Your task to perform on an android device: toggle pop-ups in chrome Image 0: 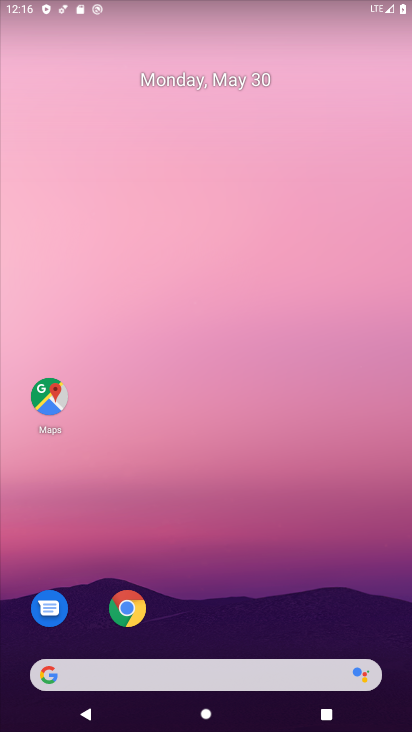
Step 0: click (139, 604)
Your task to perform on an android device: toggle pop-ups in chrome Image 1: 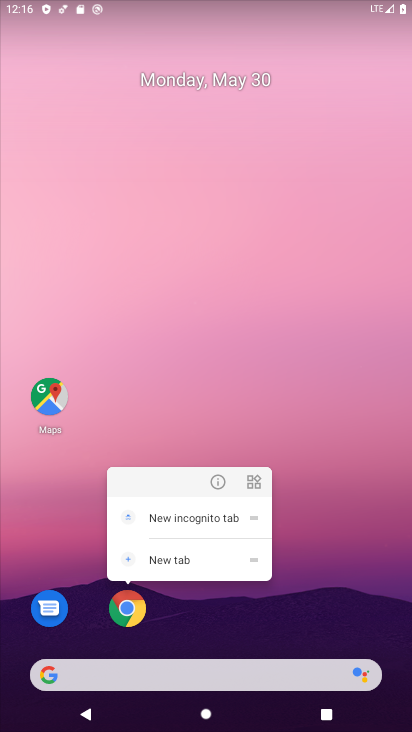
Step 1: click (120, 604)
Your task to perform on an android device: toggle pop-ups in chrome Image 2: 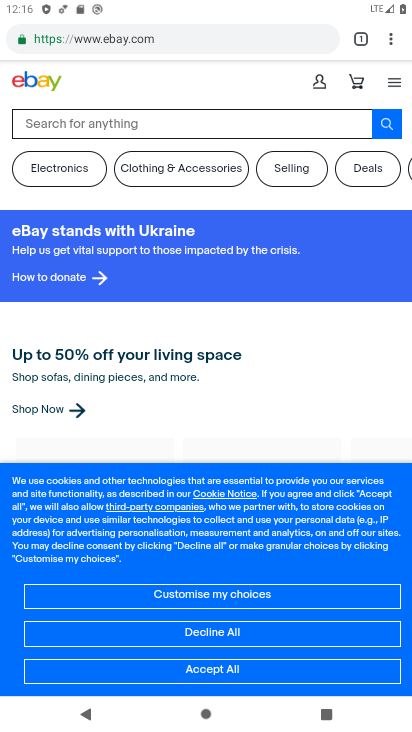
Step 2: click (392, 37)
Your task to perform on an android device: toggle pop-ups in chrome Image 3: 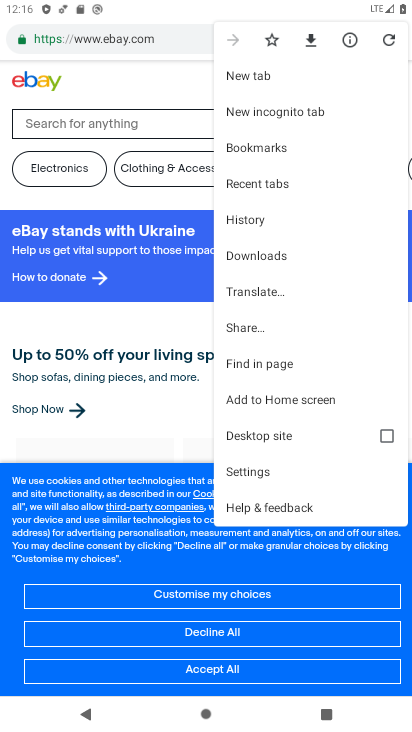
Step 3: click (254, 471)
Your task to perform on an android device: toggle pop-ups in chrome Image 4: 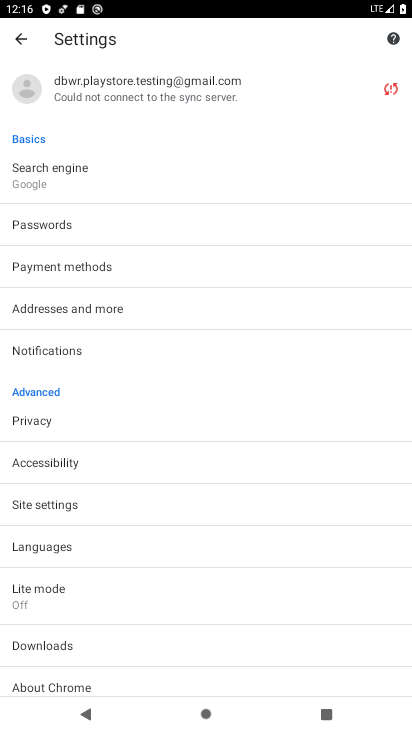
Step 4: click (65, 500)
Your task to perform on an android device: toggle pop-ups in chrome Image 5: 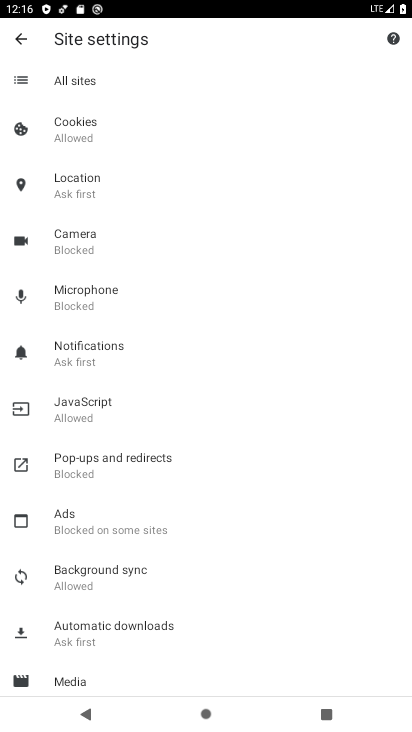
Step 5: click (86, 475)
Your task to perform on an android device: toggle pop-ups in chrome Image 6: 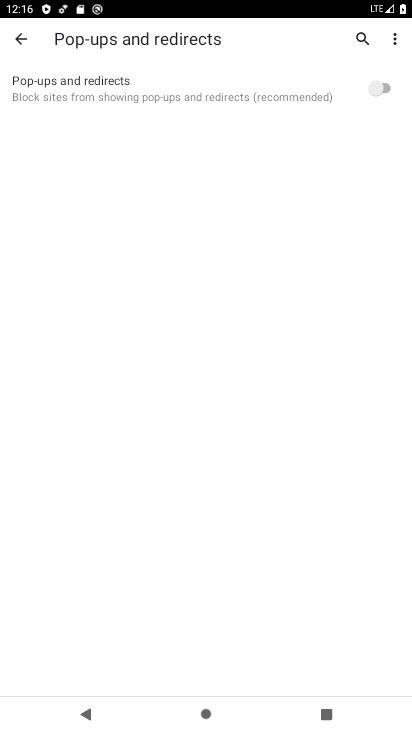
Step 6: click (352, 86)
Your task to perform on an android device: toggle pop-ups in chrome Image 7: 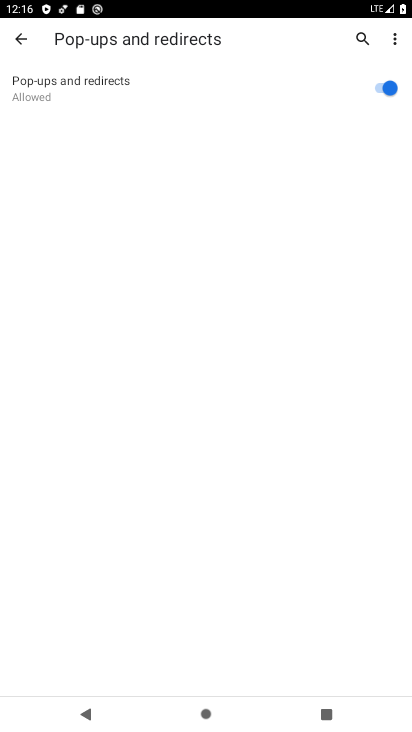
Step 7: task complete